Your task to perform on an android device: Add rayovac triple a to the cart on amazon.com Image 0: 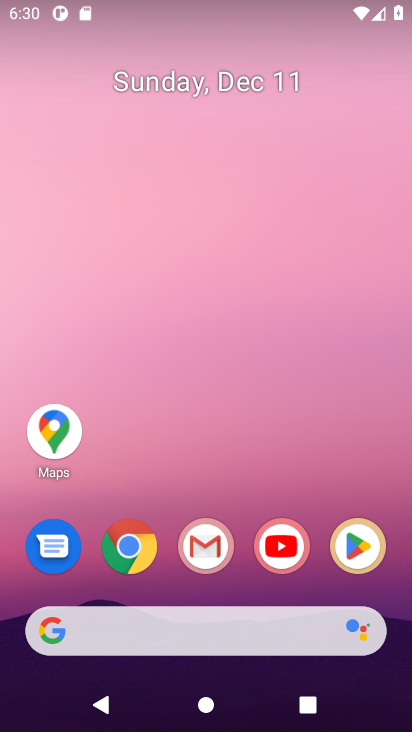
Step 0: drag from (195, 621) to (118, 46)
Your task to perform on an android device: Add rayovac triple a to the cart on amazon.com Image 1: 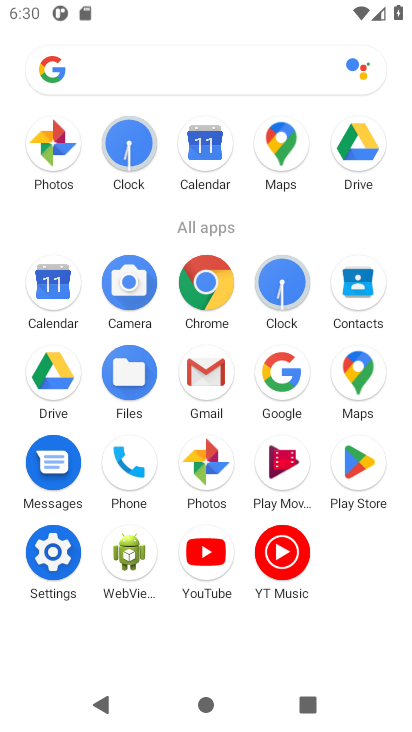
Step 1: click (281, 356)
Your task to perform on an android device: Add rayovac triple a to the cart on amazon.com Image 2: 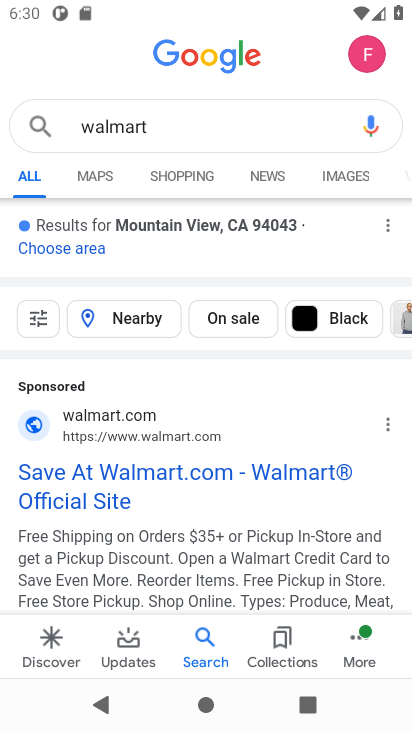
Step 2: click (137, 126)
Your task to perform on an android device: Add rayovac triple a to the cart on amazon.com Image 3: 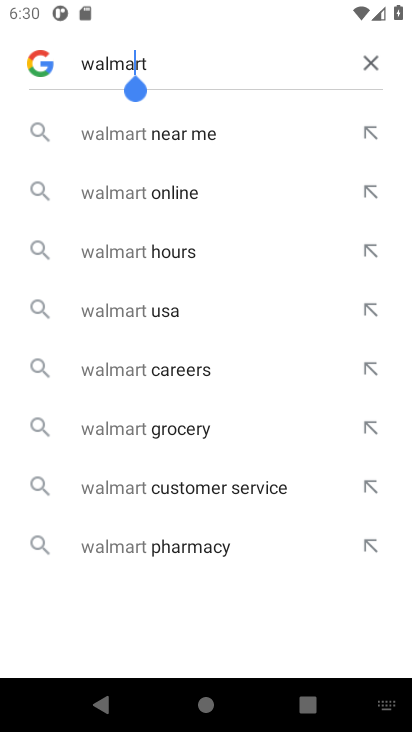
Step 3: click (372, 61)
Your task to perform on an android device: Add rayovac triple a to the cart on amazon.com Image 4: 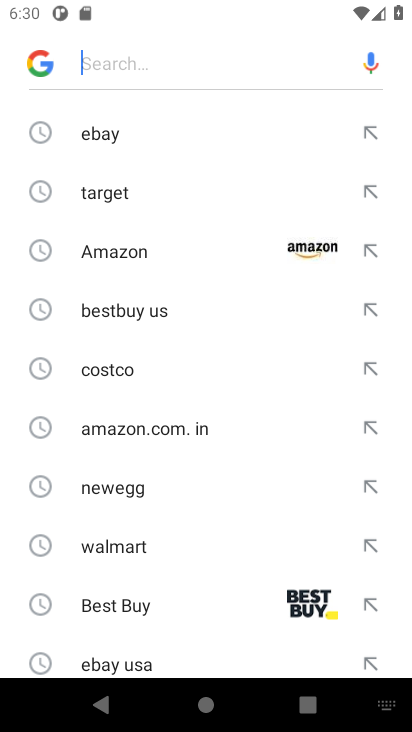
Step 4: click (317, 243)
Your task to perform on an android device: Add rayovac triple a to the cart on amazon.com Image 5: 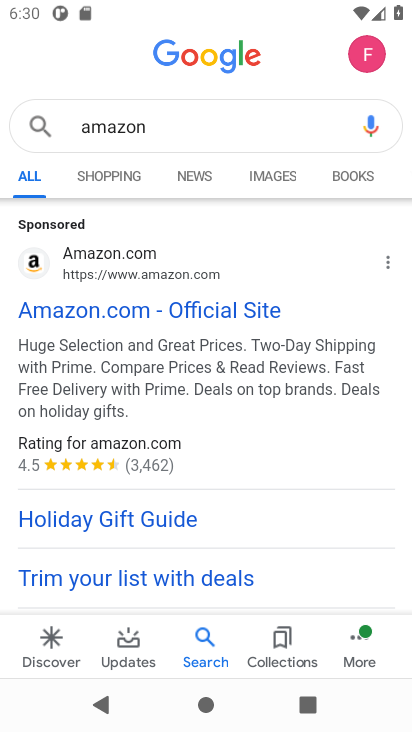
Step 5: click (238, 308)
Your task to perform on an android device: Add rayovac triple a to the cart on amazon.com Image 6: 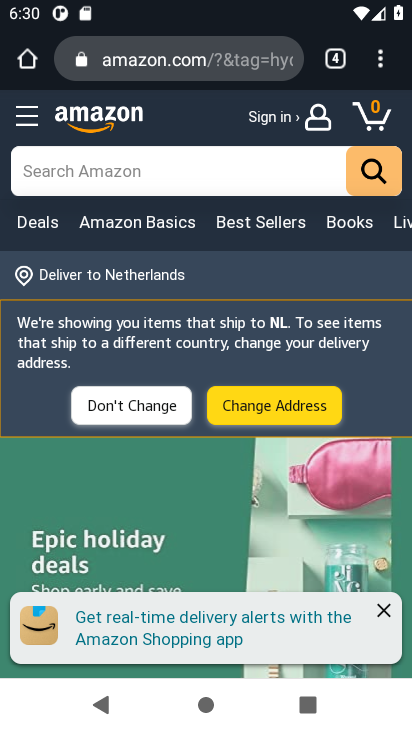
Step 6: click (66, 167)
Your task to perform on an android device: Add rayovac triple a to the cart on amazon.com Image 7: 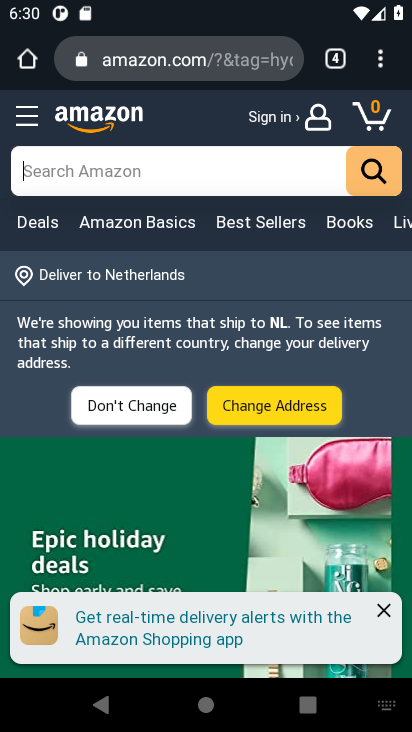
Step 7: type "rayovac triple a"
Your task to perform on an android device: Add rayovac triple a to the cart on amazon.com Image 8: 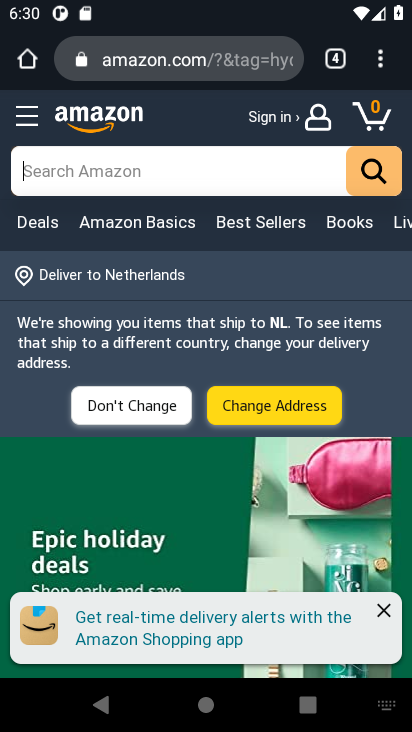
Step 8: click (361, 161)
Your task to perform on an android device: Add rayovac triple a to the cart on amazon.com Image 9: 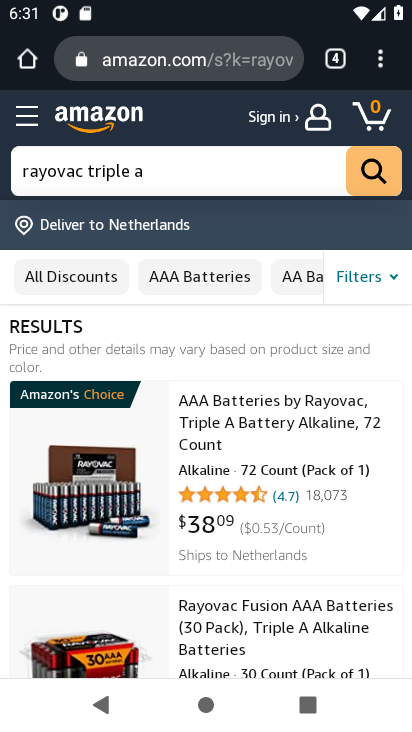
Step 9: click (263, 500)
Your task to perform on an android device: Add rayovac triple a to the cart on amazon.com Image 10: 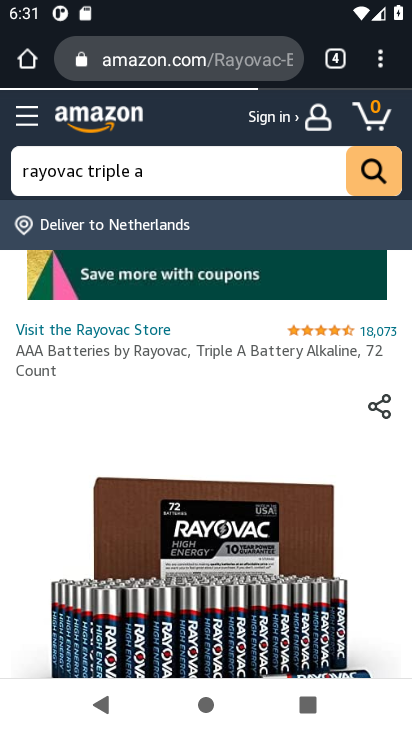
Step 10: drag from (216, 566) to (161, 209)
Your task to perform on an android device: Add rayovac triple a to the cart on amazon.com Image 11: 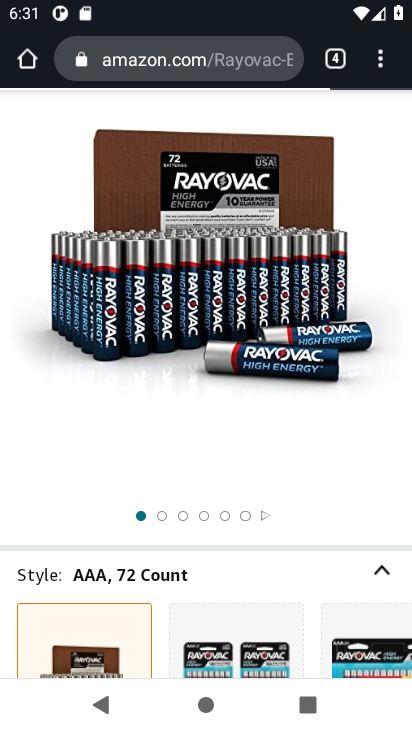
Step 11: drag from (206, 443) to (153, 162)
Your task to perform on an android device: Add rayovac triple a to the cart on amazon.com Image 12: 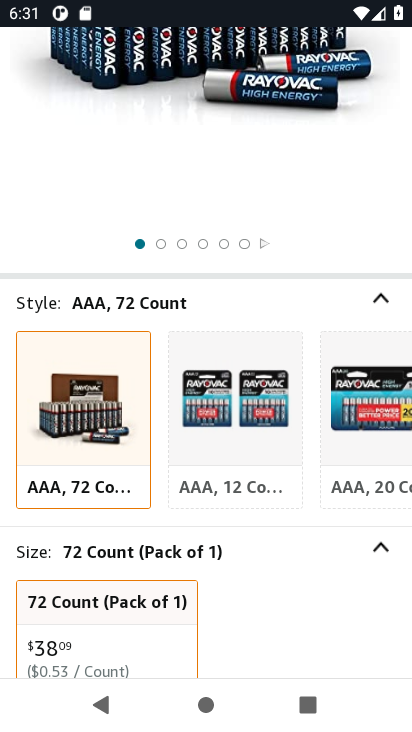
Step 12: drag from (273, 508) to (142, 90)
Your task to perform on an android device: Add rayovac triple a to the cart on amazon.com Image 13: 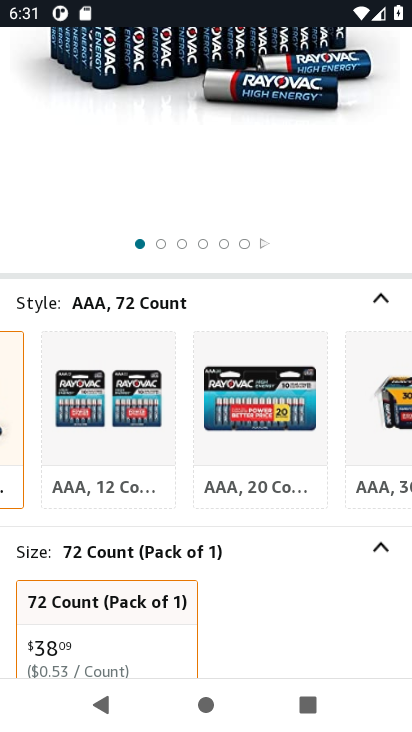
Step 13: drag from (304, 543) to (228, 80)
Your task to perform on an android device: Add rayovac triple a to the cart on amazon.com Image 14: 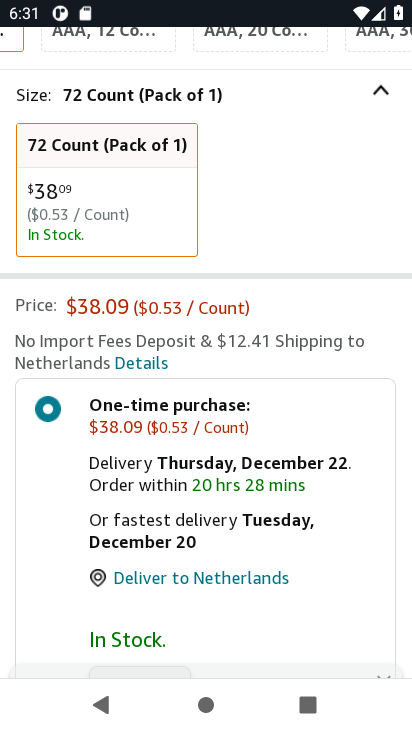
Step 14: drag from (339, 594) to (266, 140)
Your task to perform on an android device: Add rayovac triple a to the cart on amazon.com Image 15: 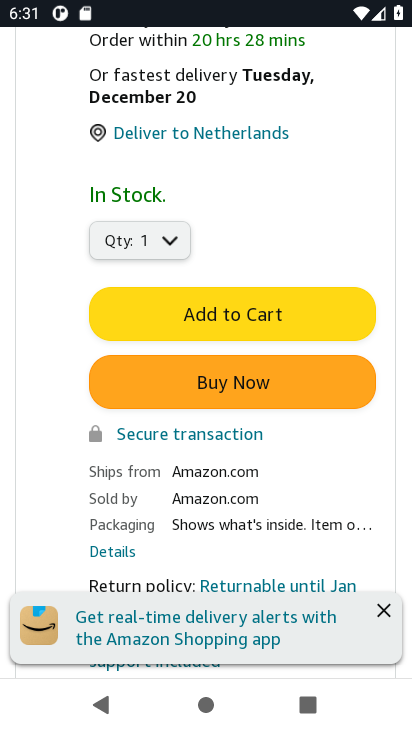
Step 15: click (222, 301)
Your task to perform on an android device: Add rayovac triple a to the cart on amazon.com Image 16: 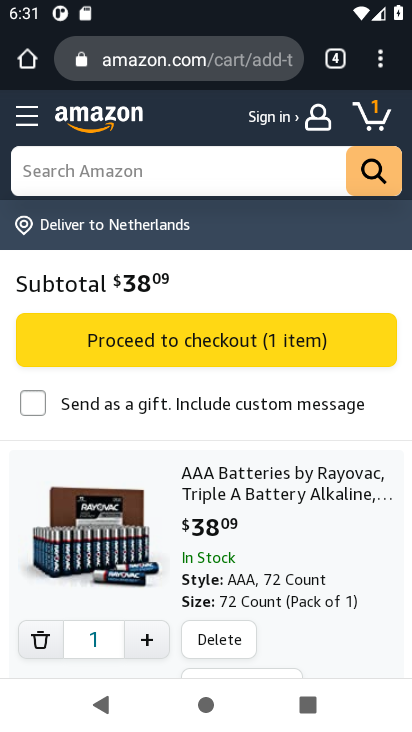
Step 16: task complete